Your task to perform on an android device: Open network settings Image 0: 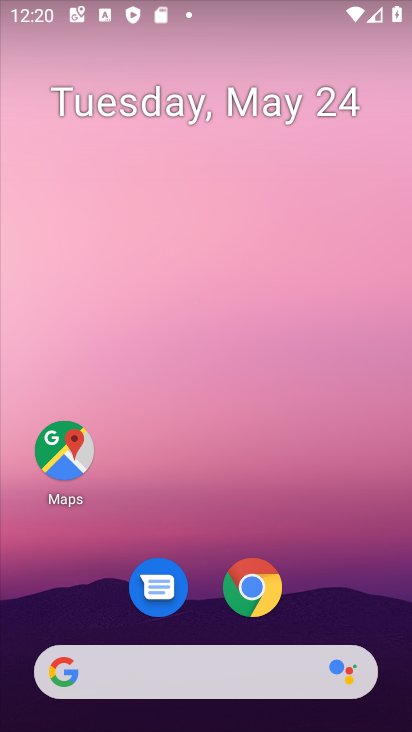
Step 0: drag from (135, 714) to (173, 43)
Your task to perform on an android device: Open network settings Image 1: 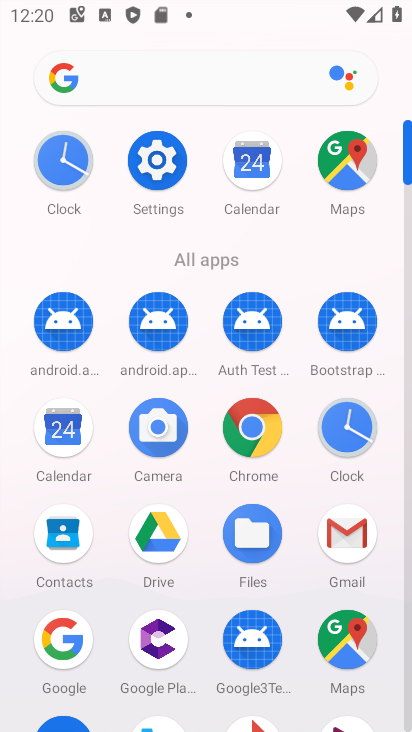
Step 1: click (140, 172)
Your task to perform on an android device: Open network settings Image 2: 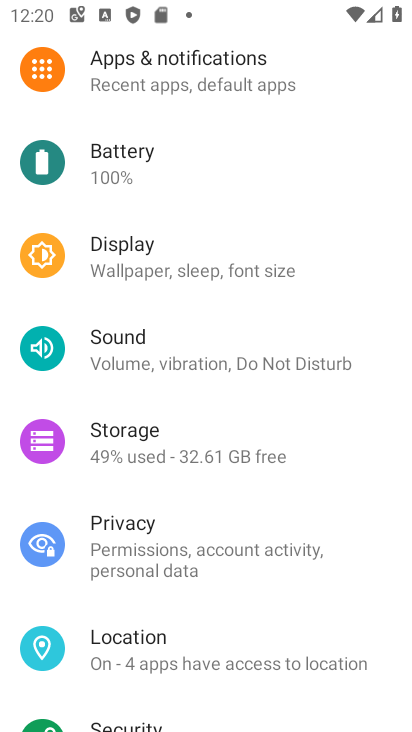
Step 2: drag from (342, 141) to (281, 524)
Your task to perform on an android device: Open network settings Image 3: 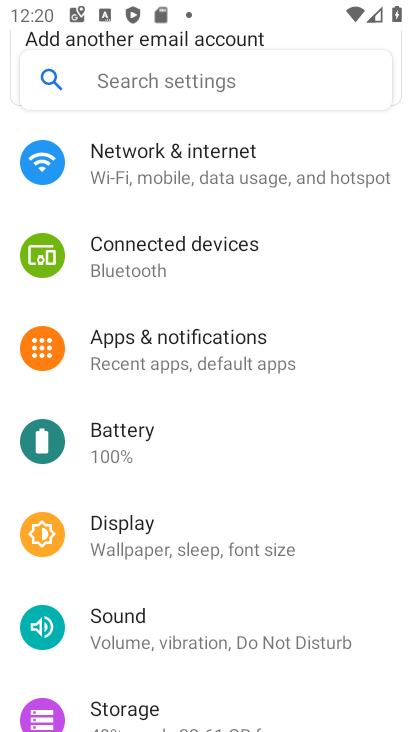
Step 3: click (314, 174)
Your task to perform on an android device: Open network settings Image 4: 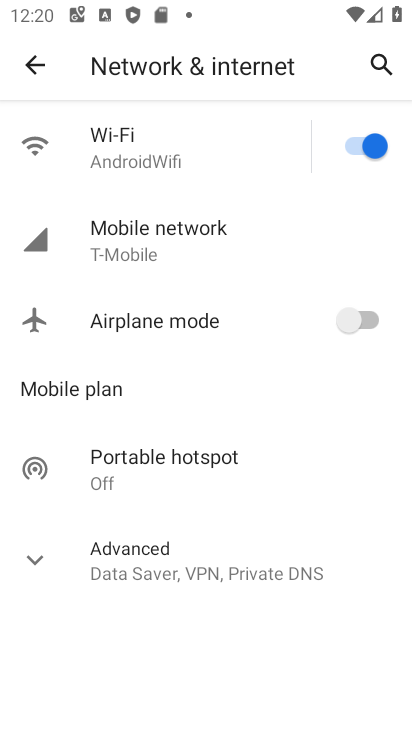
Step 4: task complete